Your task to perform on an android device: Open Youtube and go to "Your channel" Image 0: 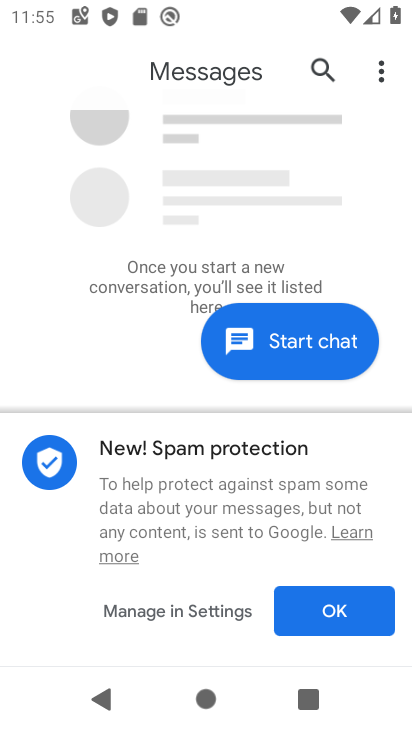
Step 0: press home button
Your task to perform on an android device: Open Youtube and go to "Your channel" Image 1: 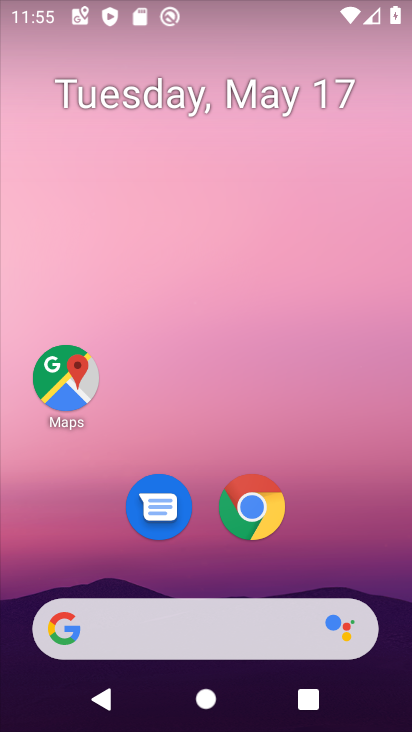
Step 1: drag from (334, 513) to (339, 178)
Your task to perform on an android device: Open Youtube and go to "Your channel" Image 2: 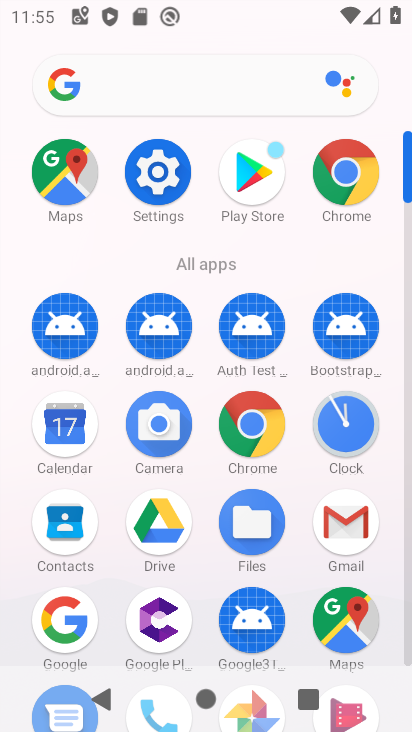
Step 2: drag from (306, 649) to (312, 275)
Your task to perform on an android device: Open Youtube and go to "Your channel" Image 3: 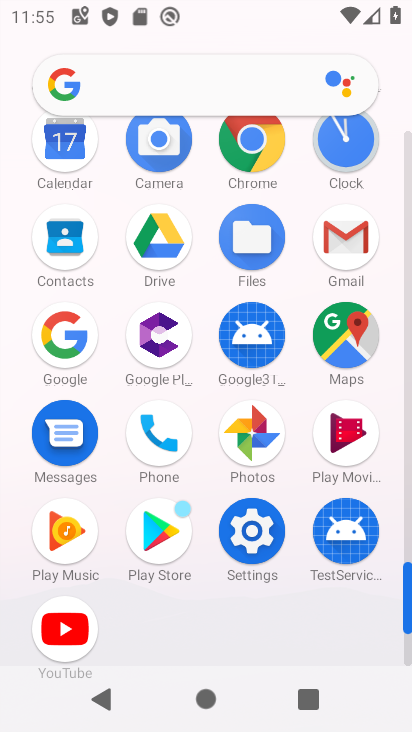
Step 3: click (69, 617)
Your task to perform on an android device: Open Youtube and go to "Your channel" Image 4: 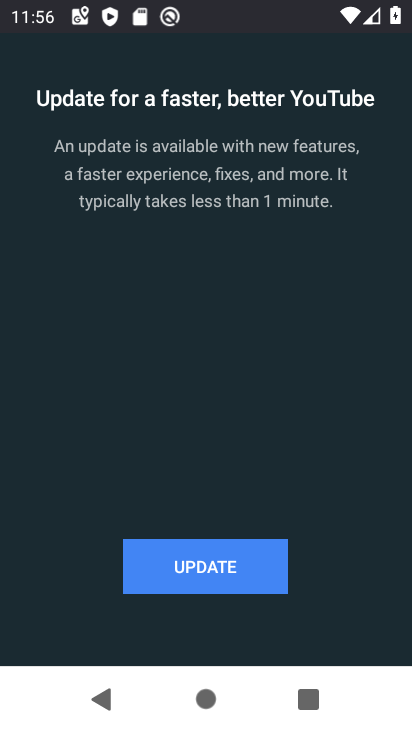
Step 4: task complete